Your task to perform on an android device: Is it going to rain today? Image 0: 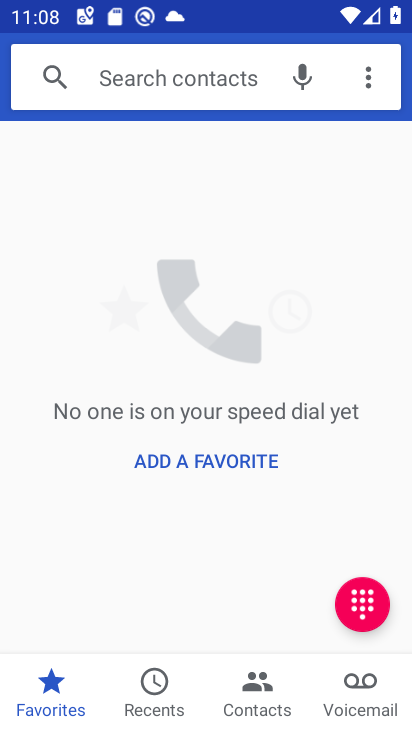
Step 0: press home button
Your task to perform on an android device: Is it going to rain today? Image 1: 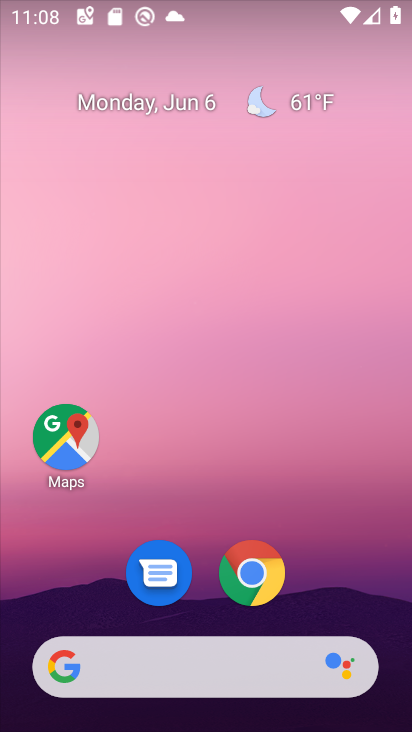
Step 1: click (274, 104)
Your task to perform on an android device: Is it going to rain today? Image 2: 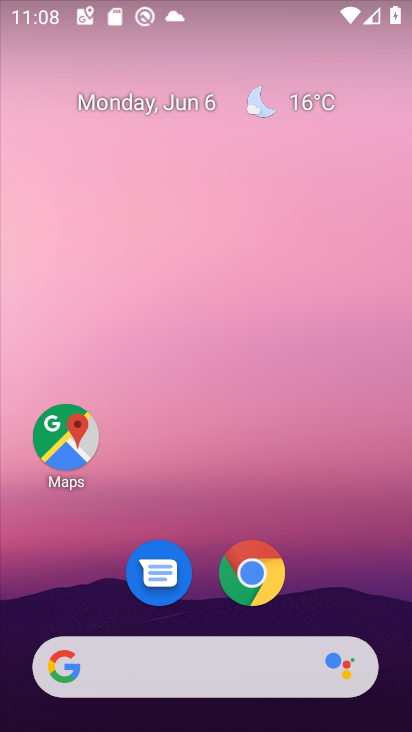
Step 2: click (297, 98)
Your task to perform on an android device: Is it going to rain today? Image 3: 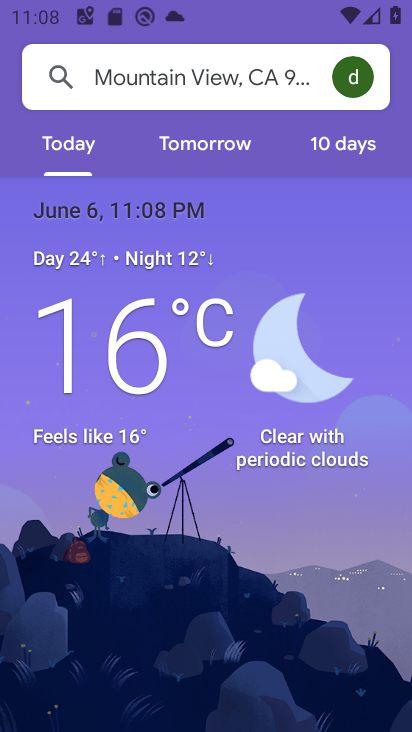
Step 3: task complete